Your task to perform on an android device: toggle data saver in the chrome app Image 0: 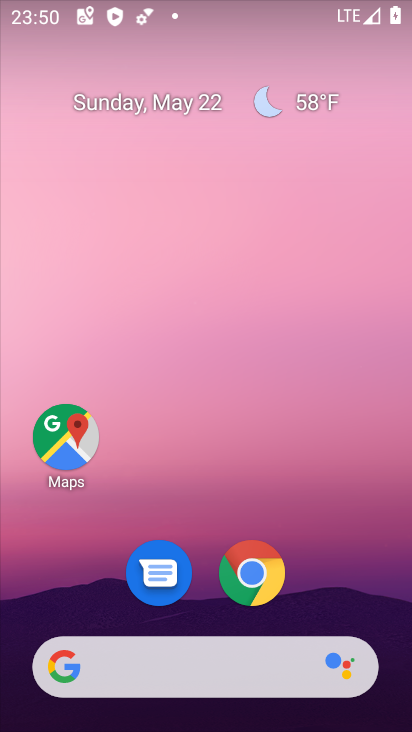
Step 0: drag from (212, 615) to (225, 196)
Your task to perform on an android device: toggle data saver in the chrome app Image 1: 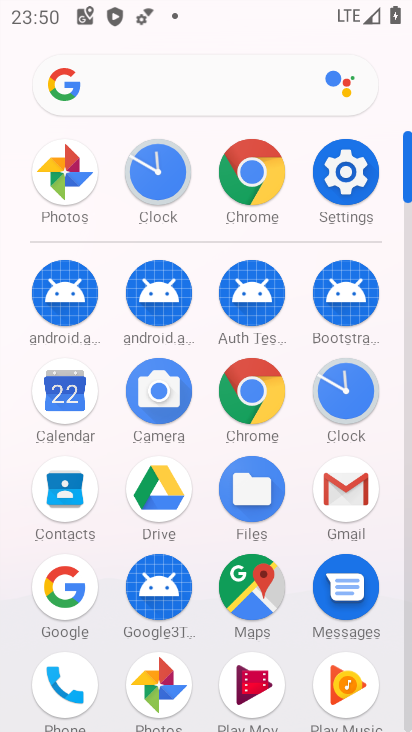
Step 1: click (259, 182)
Your task to perform on an android device: toggle data saver in the chrome app Image 2: 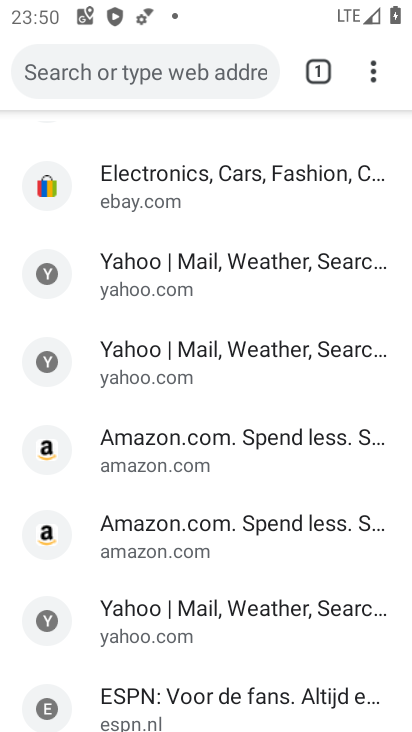
Step 2: click (379, 71)
Your task to perform on an android device: toggle data saver in the chrome app Image 3: 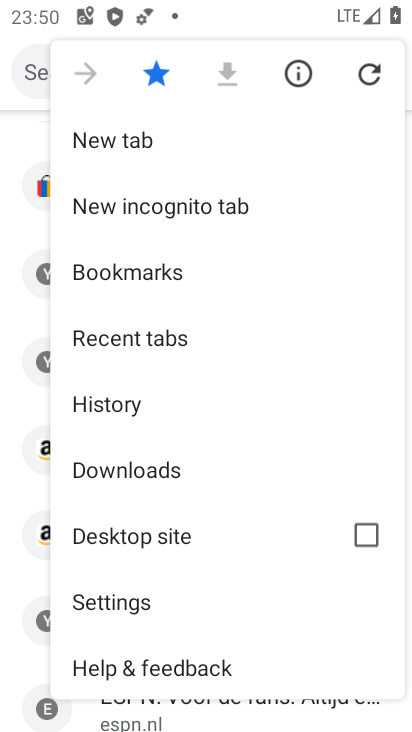
Step 3: click (147, 608)
Your task to perform on an android device: toggle data saver in the chrome app Image 4: 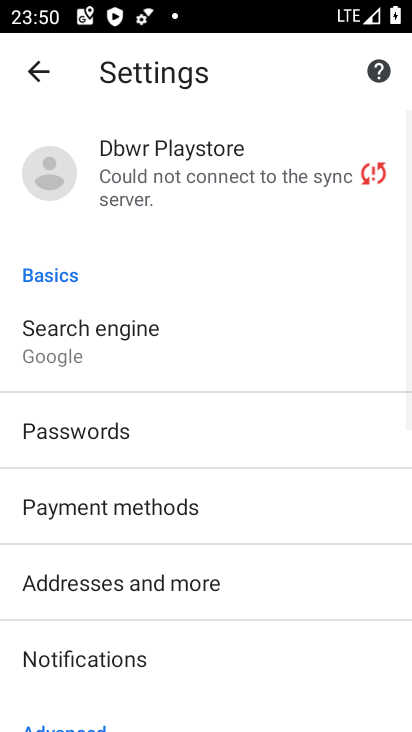
Step 4: drag from (195, 552) to (245, 258)
Your task to perform on an android device: toggle data saver in the chrome app Image 5: 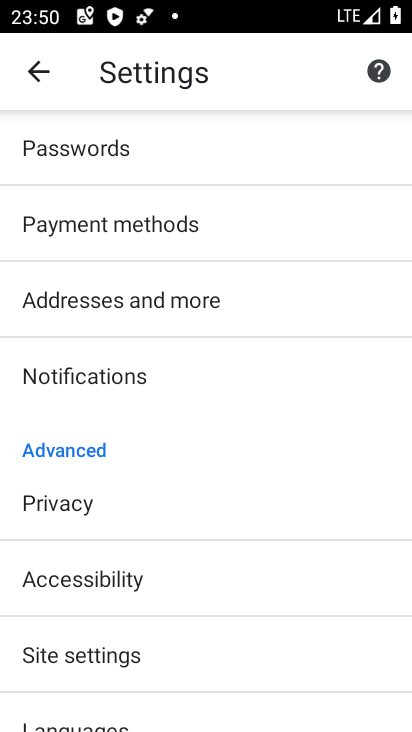
Step 5: drag from (138, 619) to (178, 391)
Your task to perform on an android device: toggle data saver in the chrome app Image 6: 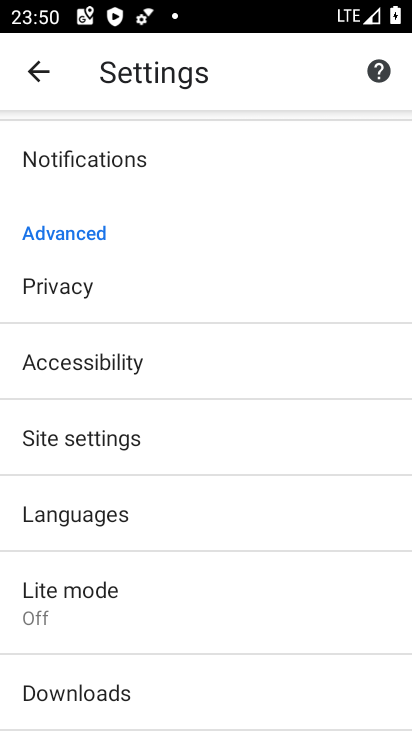
Step 6: click (120, 601)
Your task to perform on an android device: toggle data saver in the chrome app Image 7: 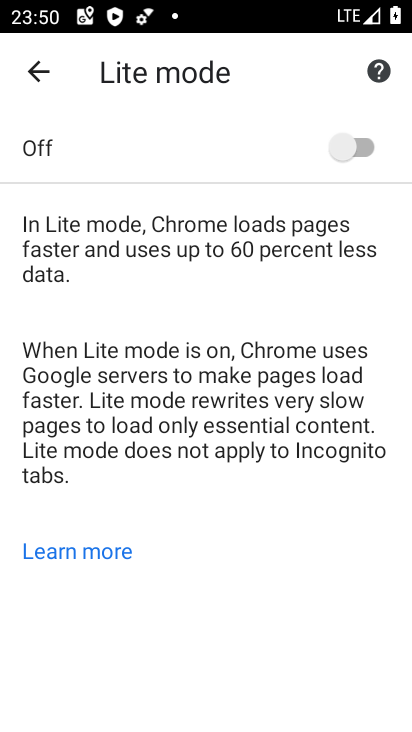
Step 7: click (380, 137)
Your task to perform on an android device: toggle data saver in the chrome app Image 8: 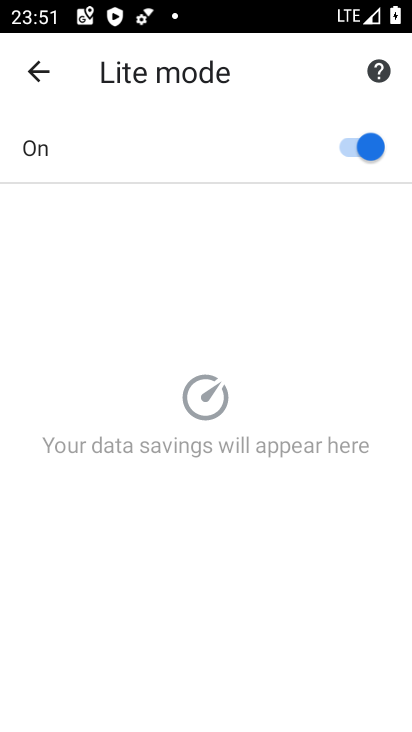
Step 8: task complete